Your task to perform on an android device: see creations saved in the google photos Image 0: 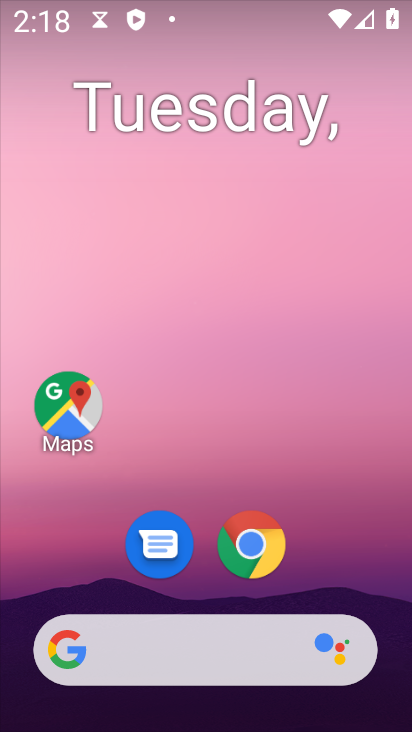
Step 0: drag from (313, 588) to (248, 33)
Your task to perform on an android device: see creations saved in the google photos Image 1: 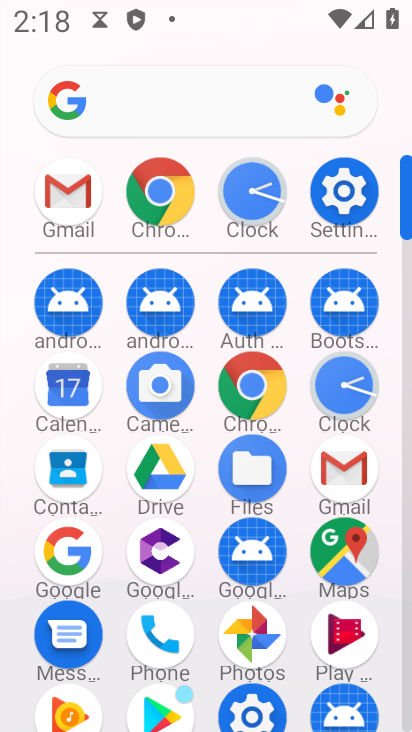
Step 1: drag from (16, 542) to (29, 230)
Your task to perform on an android device: see creations saved in the google photos Image 2: 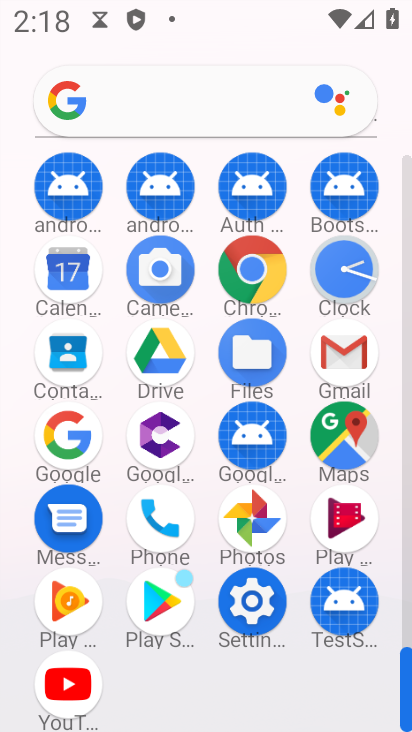
Step 2: click (255, 515)
Your task to perform on an android device: see creations saved in the google photos Image 3: 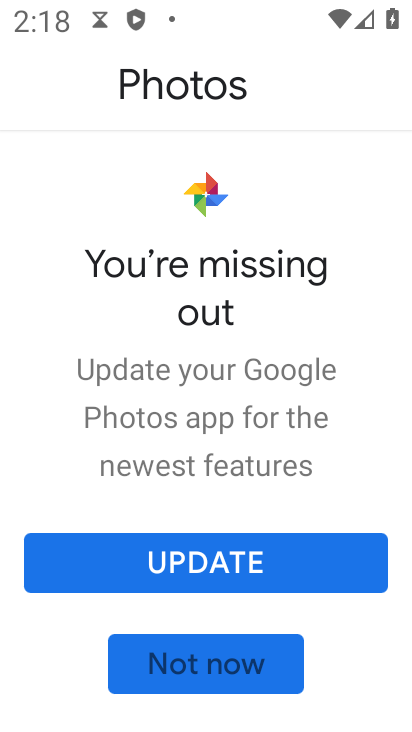
Step 3: click (259, 558)
Your task to perform on an android device: see creations saved in the google photos Image 4: 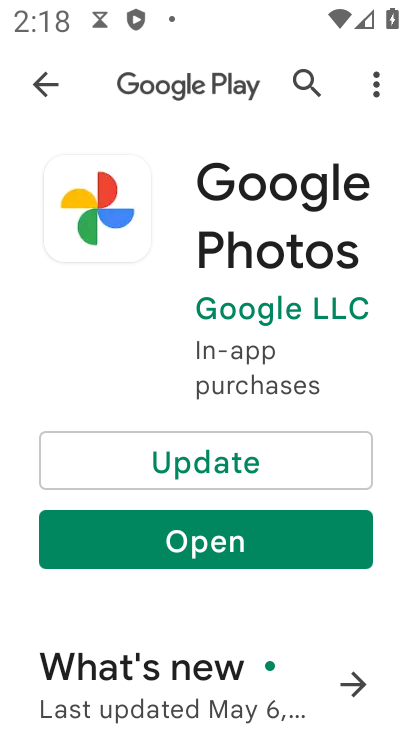
Step 4: click (210, 448)
Your task to perform on an android device: see creations saved in the google photos Image 5: 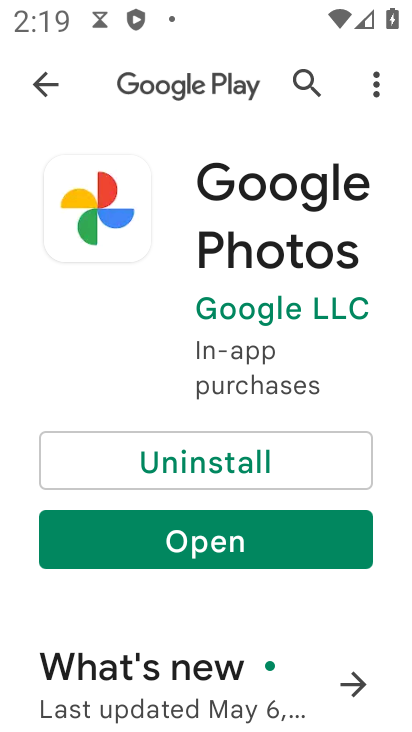
Step 5: click (211, 519)
Your task to perform on an android device: see creations saved in the google photos Image 6: 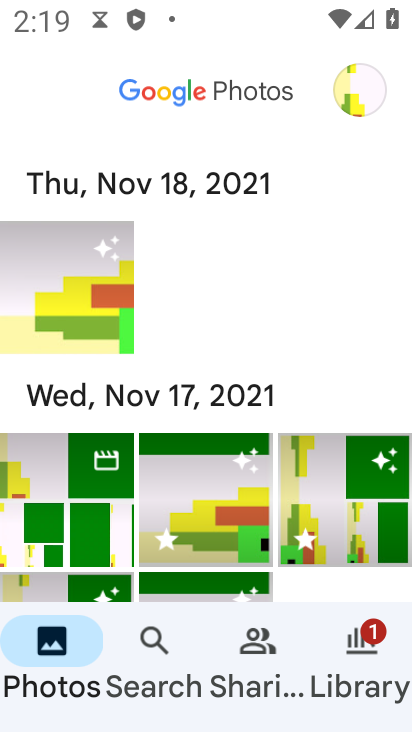
Step 6: task complete